Your task to perform on an android device: Open the web browser Image 0: 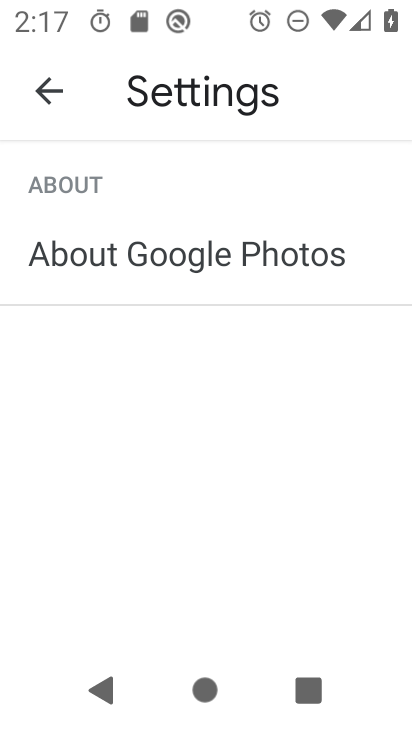
Step 0: press home button
Your task to perform on an android device: Open the web browser Image 1: 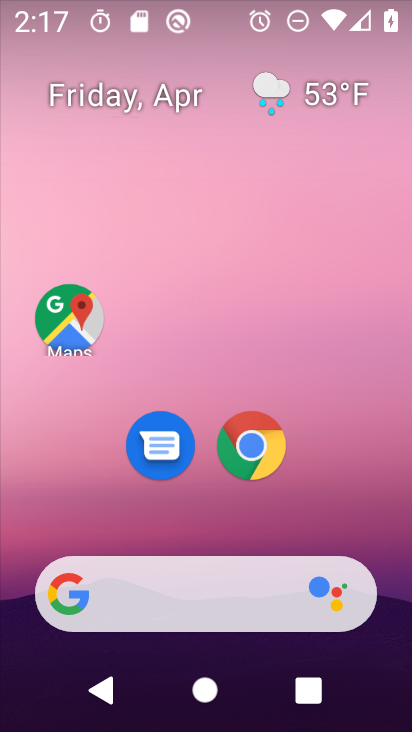
Step 1: drag from (381, 512) to (386, 182)
Your task to perform on an android device: Open the web browser Image 2: 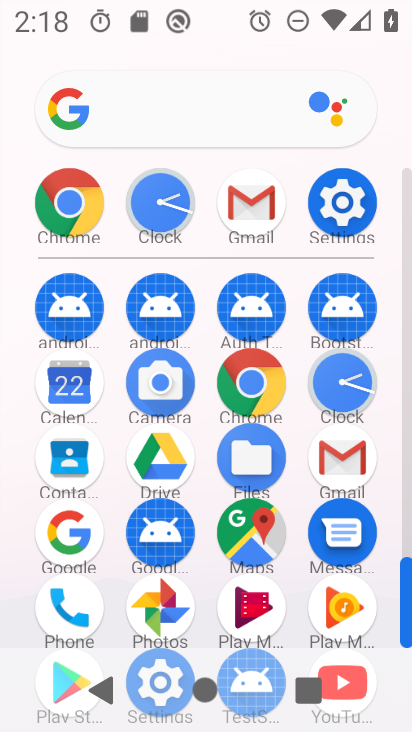
Step 2: click (255, 403)
Your task to perform on an android device: Open the web browser Image 3: 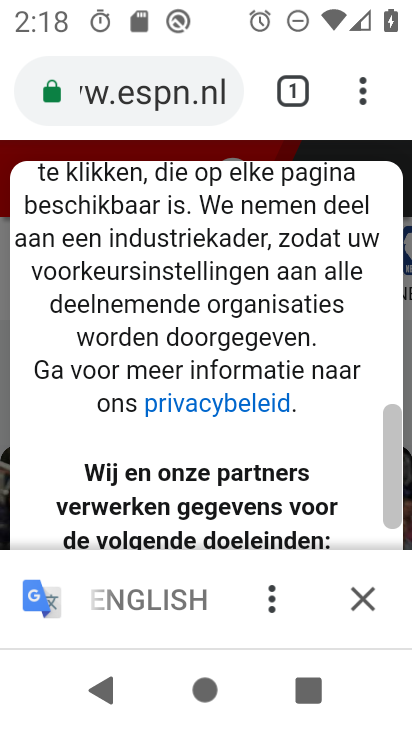
Step 3: task complete